Your task to perform on an android device: Open internet settings Image 0: 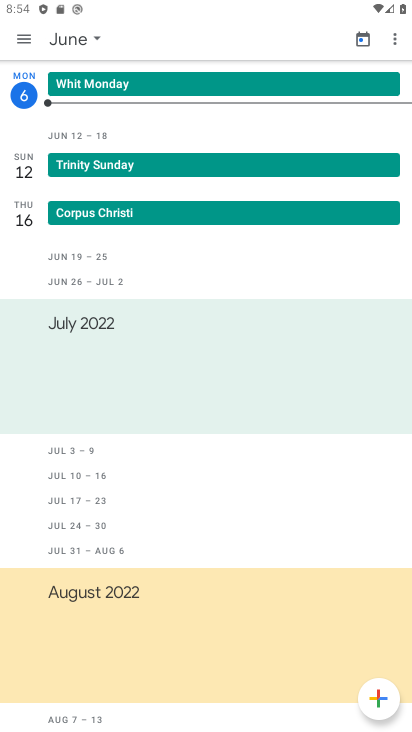
Step 0: press home button
Your task to perform on an android device: Open internet settings Image 1: 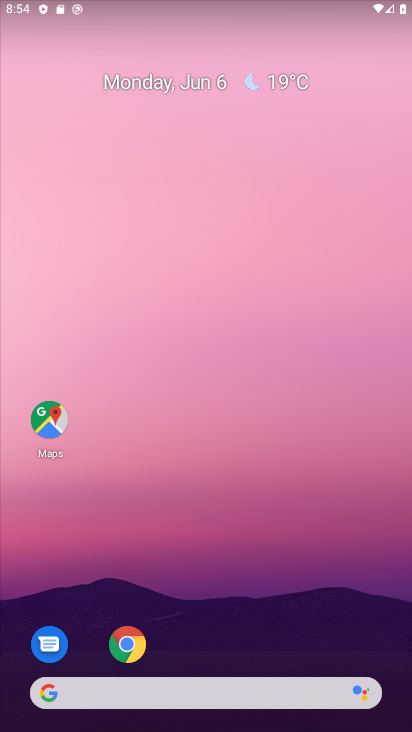
Step 1: drag from (178, 662) to (282, 70)
Your task to perform on an android device: Open internet settings Image 2: 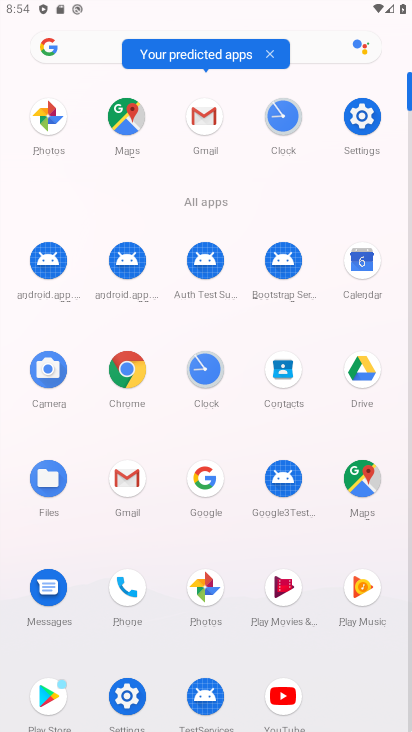
Step 2: click (132, 697)
Your task to perform on an android device: Open internet settings Image 3: 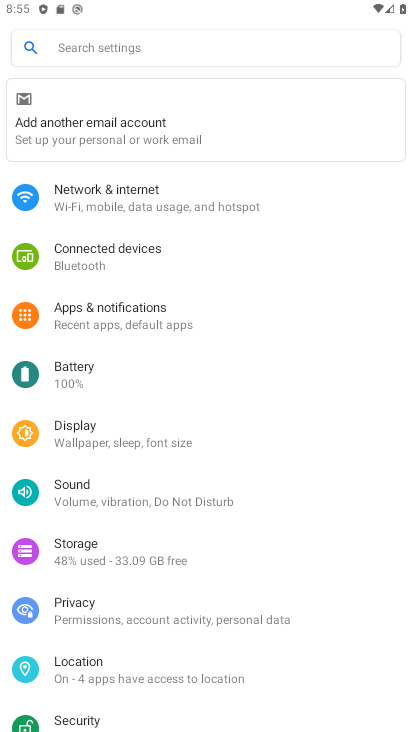
Step 3: click (174, 214)
Your task to perform on an android device: Open internet settings Image 4: 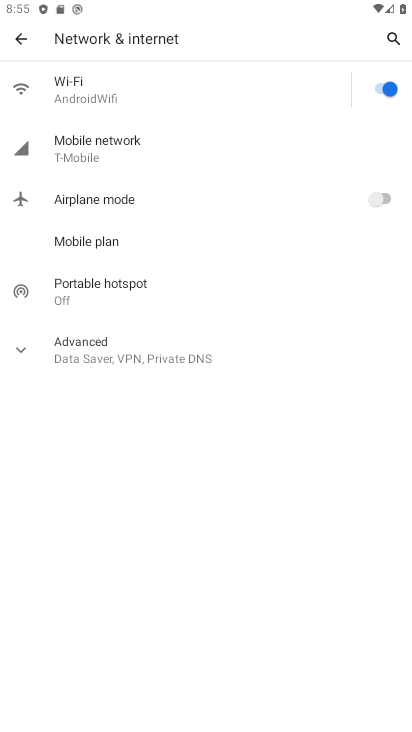
Step 4: click (163, 142)
Your task to perform on an android device: Open internet settings Image 5: 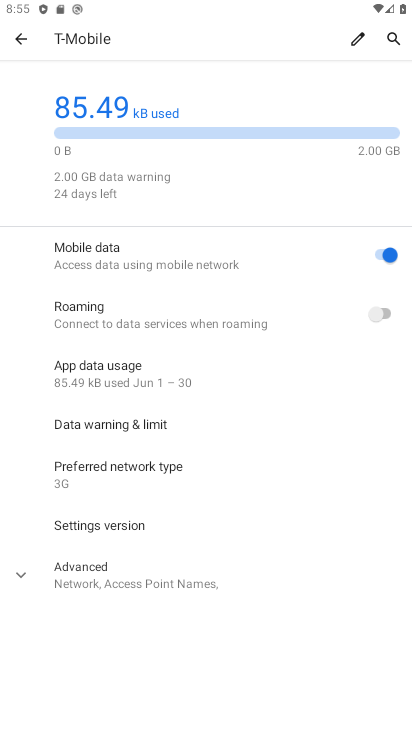
Step 5: task complete